Your task to perform on an android device: What's on my calendar tomorrow? Image 0: 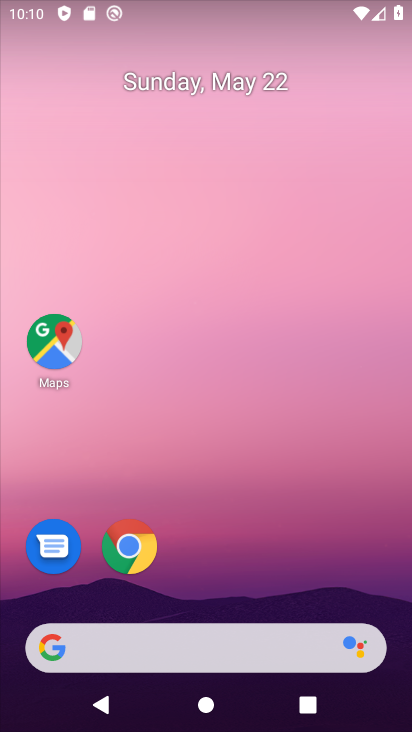
Step 0: drag from (224, 584) to (193, 2)
Your task to perform on an android device: What's on my calendar tomorrow? Image 1: 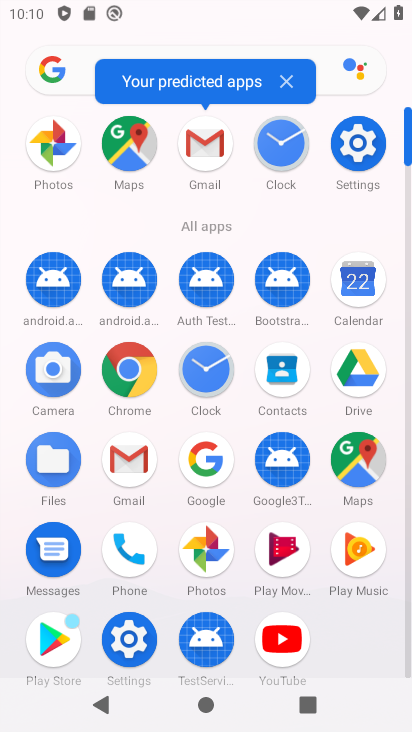
Step 1: click (345, 274)
Your task to perform on an android device: What's on my calendar tomorrow? Image 2: 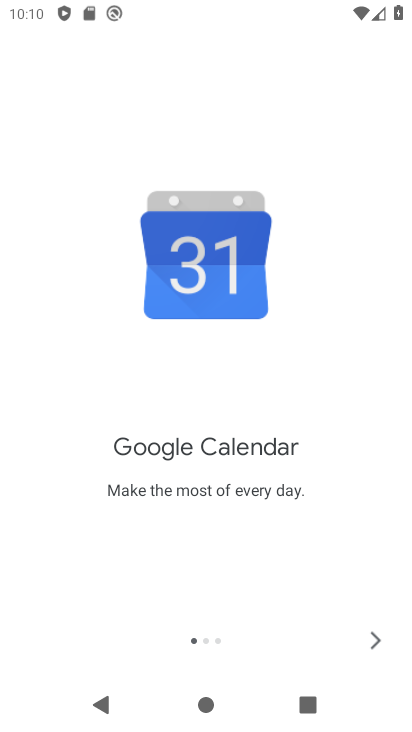
Step 2: click (374, 646)
Your task to perform on an android device: What's on my calendar tomorrow? Image 3: 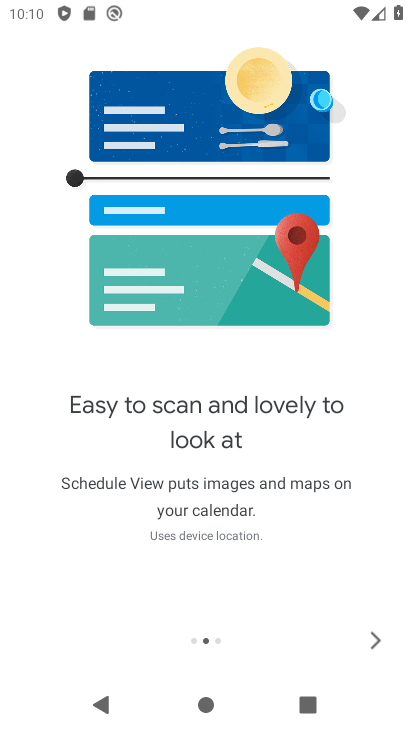
Step 3: click (371, 646)
Your task to perform on an android device: What's on my calendar tomorrow? Image 4: 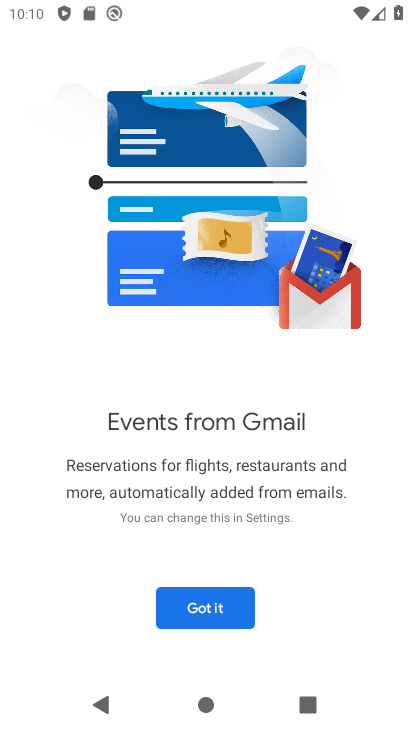
Step 4: click (204, 611)
Your task to perform on an android device: What's on my calendar tomorrow? Image 5: 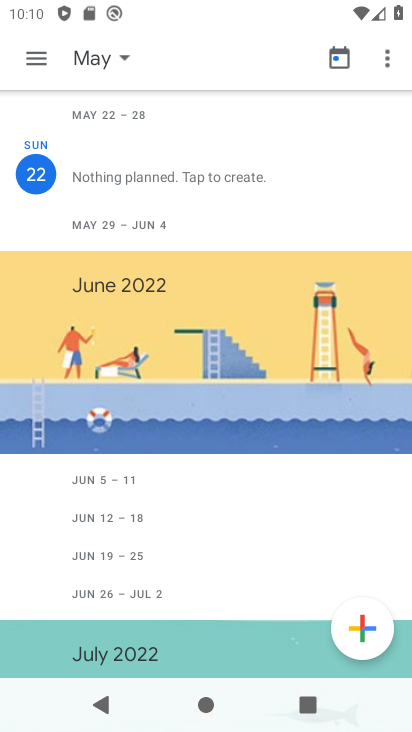
Step 5: click (37, 46)
Your task to perform on an android device: What's on my calendar tomorrow? Image 6: 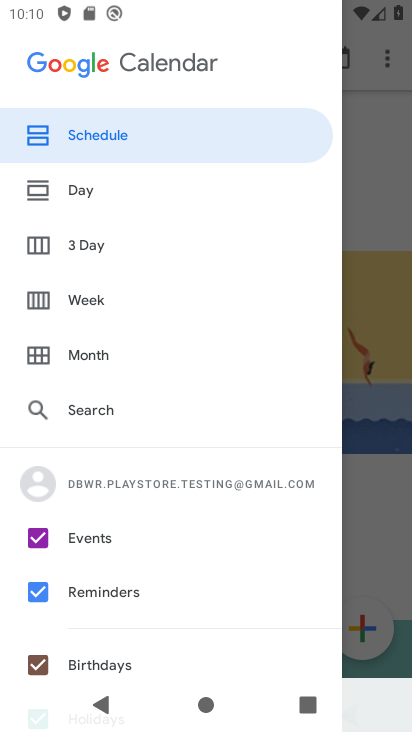
Step 6: click (107, 243)
Your task to perform on an android device: What's on my calendar tomorrow? Image 7: 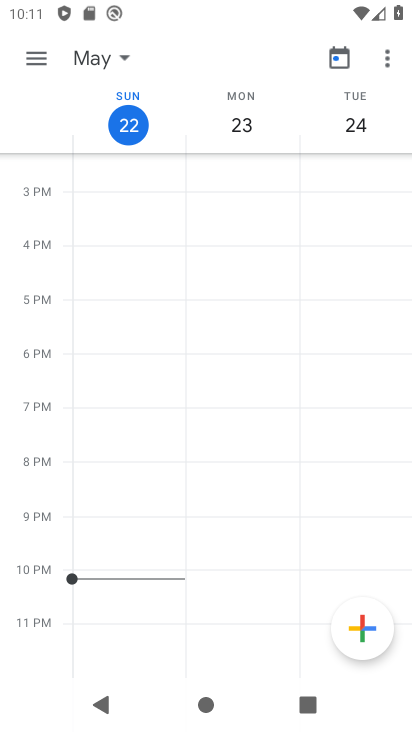
Step 7: task complete